Your task to perform on an android device: check the backup settings in the google photos Image 0: 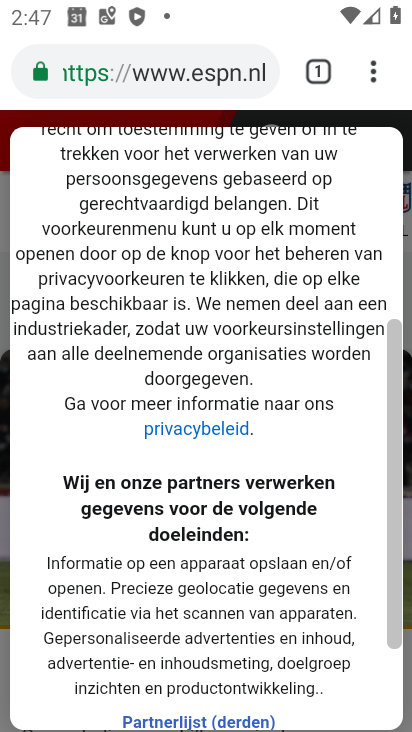
Step 0: press home button
Your task to perform on an android device: check the backup settings in the google photos Image 1: 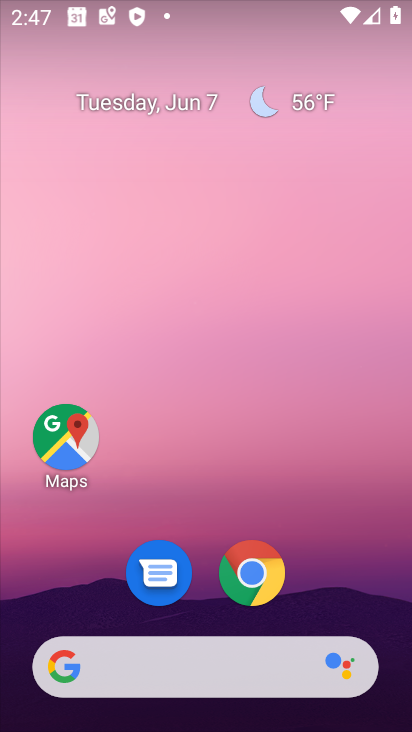
Step 1: drag from (315, 579) to (214, 6)
Your task to perform on an android device: check the backup settings in the google photos Image 2: 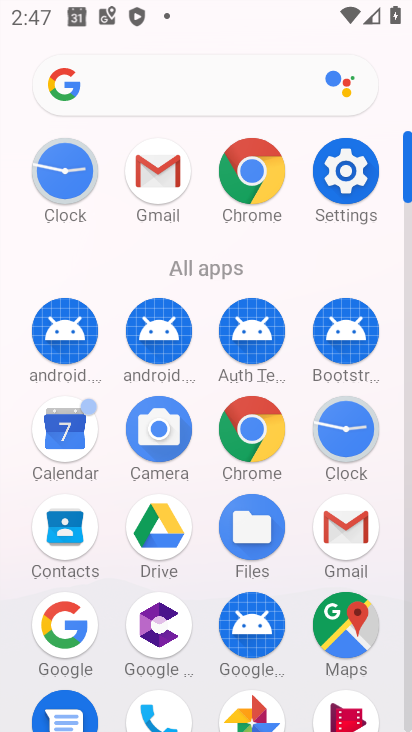
Step 2: drag from (307, 644) to (292, 192)
Your task to perform on an android device: check the backup settings in the google photos Image 3: 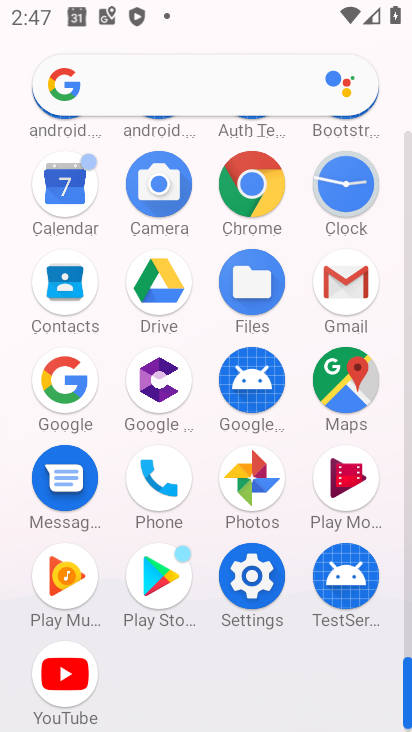
Step 3: click (244, 470)
Your task to perform on an android device: check the backup settings in the google photos Image 4: 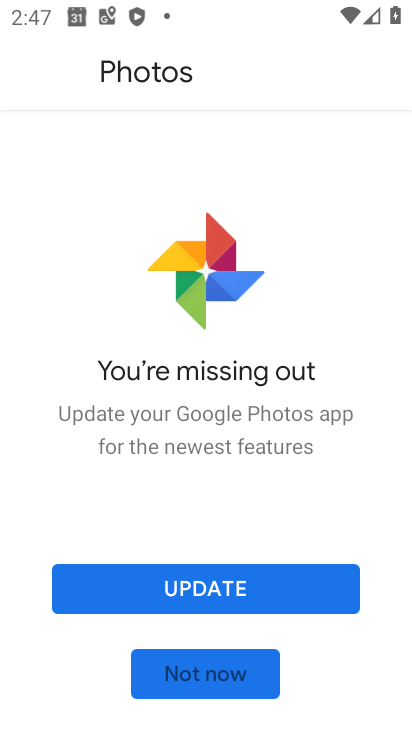
Step 4: click (208, 576)
Your task to perform on an android device: check the backup settings in the google photos Image 5: 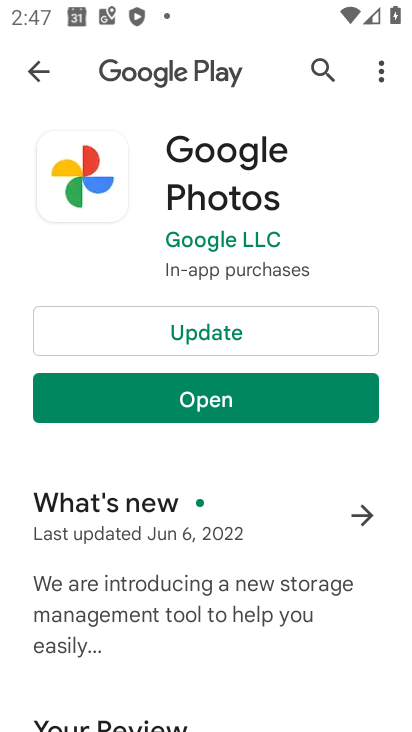
Step 5: click (189, 341)
Your task to perform on an android device: check the backup settings in the google photos Image 6: 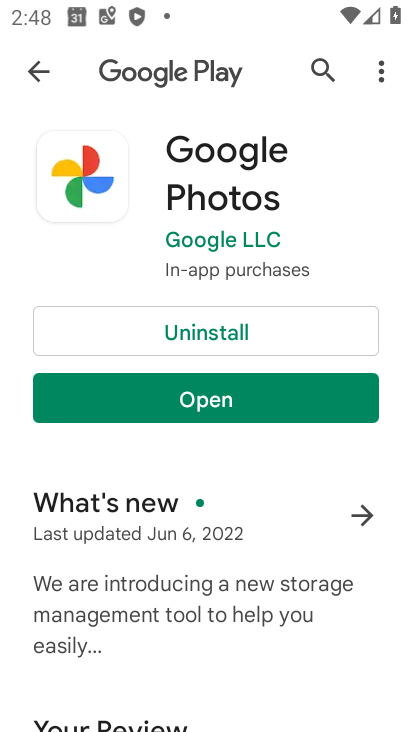
Step 6: click (166, 404)
Your task to perform on an android device: check the backup settings in the google photos Image 7: 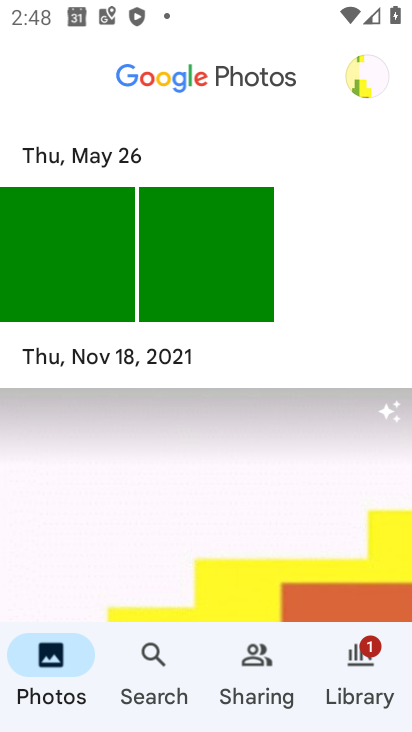
Step 7: click (359, 73)
Your task to perform on an android device: check the backup settings in the google photos Image 8: 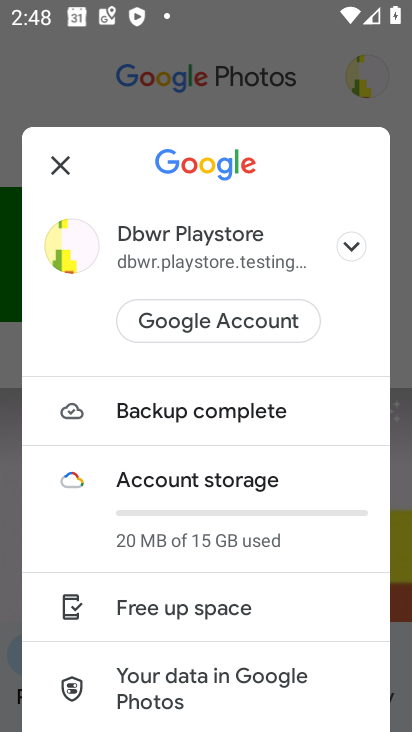
Step 8: drag from (158, 634) to (166, 296)
Your task to perform on an android device: check the backup settings in the google photos Image 9: 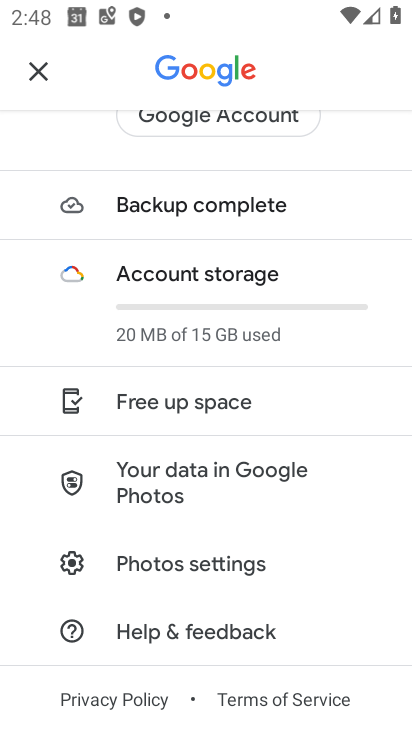
Step 9: click (166, 556)
Your task to perform on an android device: check the backup settings in the google photos Image 10: 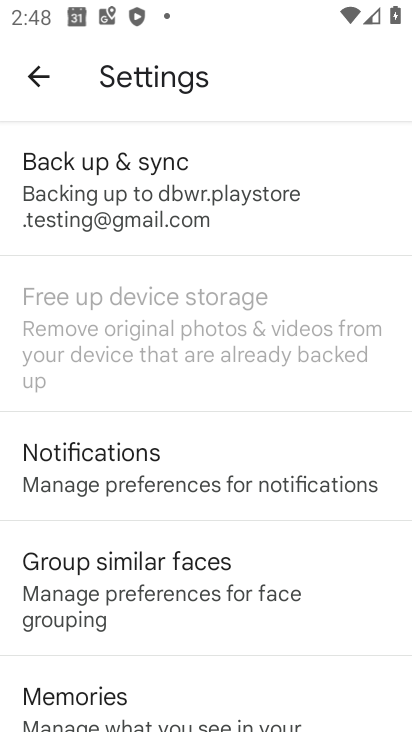
Step 10: click (181, 215)
Your task to perform on an android device: check the backup settings in the google photos Image 11: 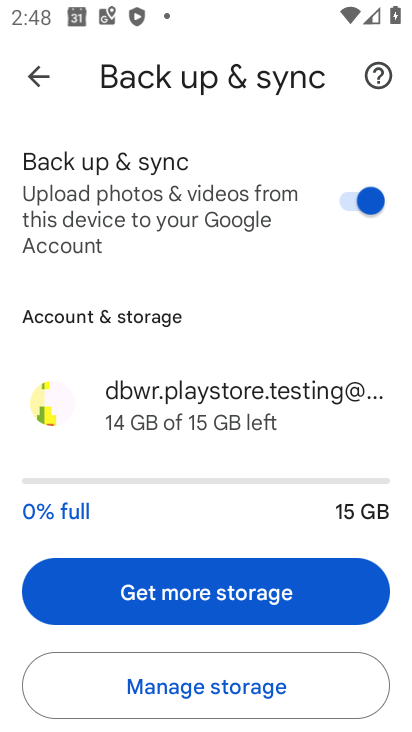
Step 11: task complete